Your task to perform on an android device: Show me recent news Image 0: 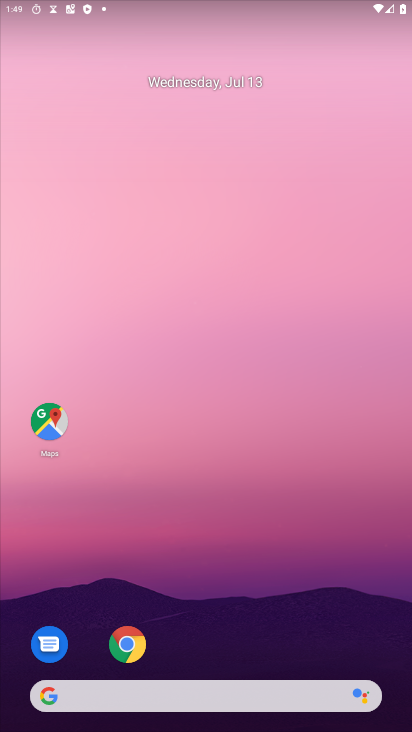
Step 0: press home button
Your task to perform on an android device: Show me recent news Image 1: 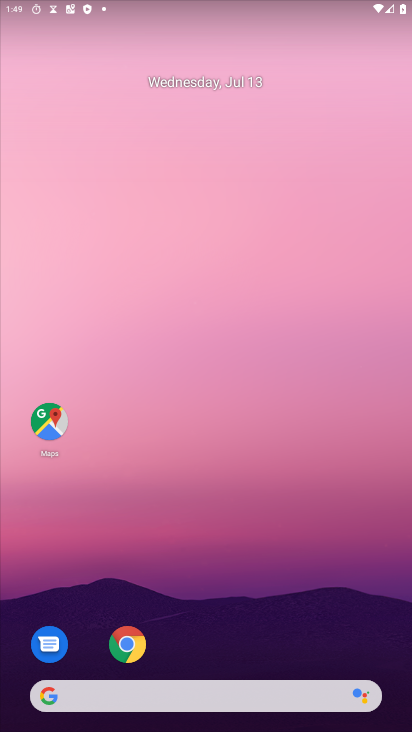
Step 1: type " recent news"
Your task to perform on an android device: Show me recent news Image 2: 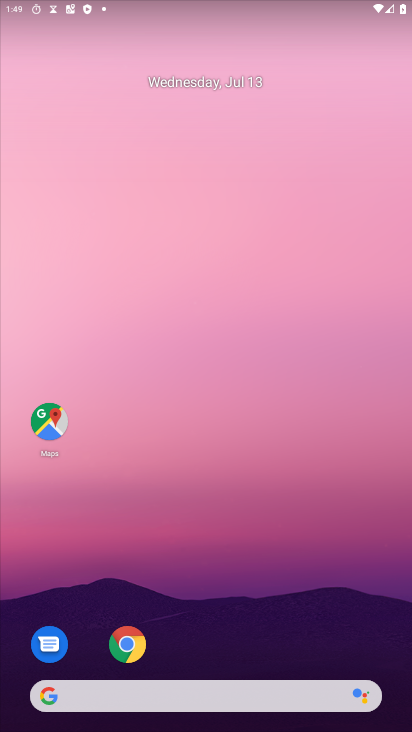
Step 2: click (164, 698)
Your task to perform on an android device: Show me recent news Image 3: 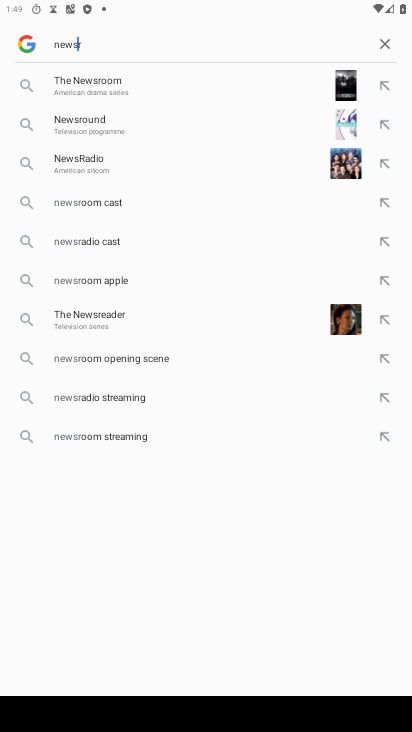
Step 3: click (379, 41)
Your task to perform on an android device: Show me recent news Image 4: 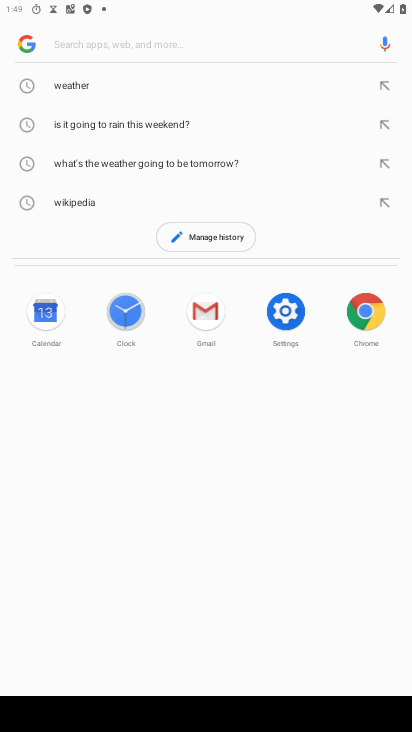
Step 4: type " recent news"
Your task to perform on an android device: Show me recent news Image 5: 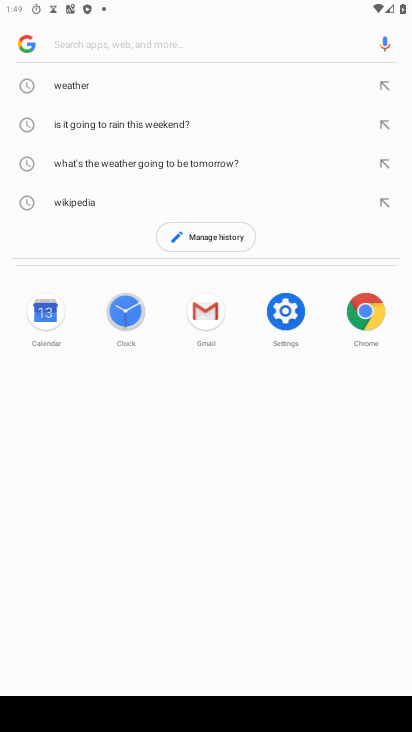
Step 5: click (119, 43)
Your task to perform on an android device: Show me recent news Image 6: 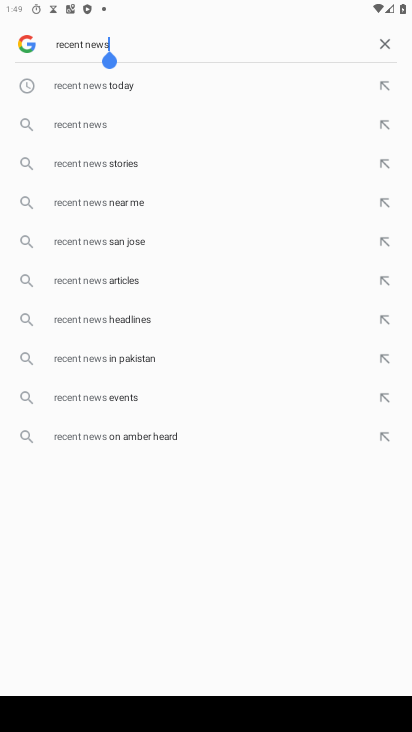
Step 6: press enter
Your task to perform on an android device: Show me recent news Image 7: 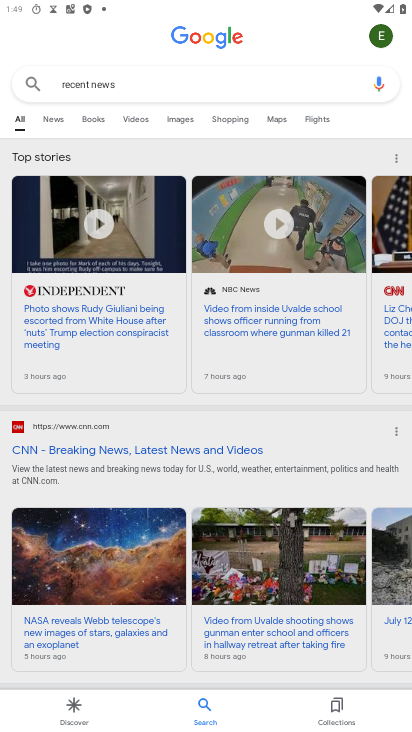
Step 7: task complete